Your task to perform on an android device: turn on airplane mode Image 0: 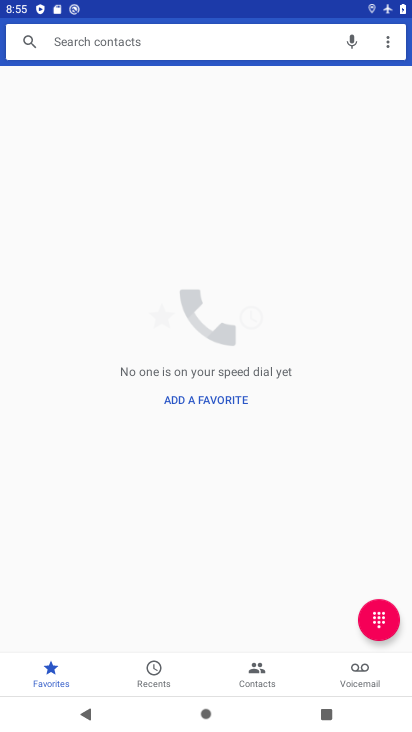
Step 0: press home button
Your task to perform on an android device: turn on airplane mode Image 1: 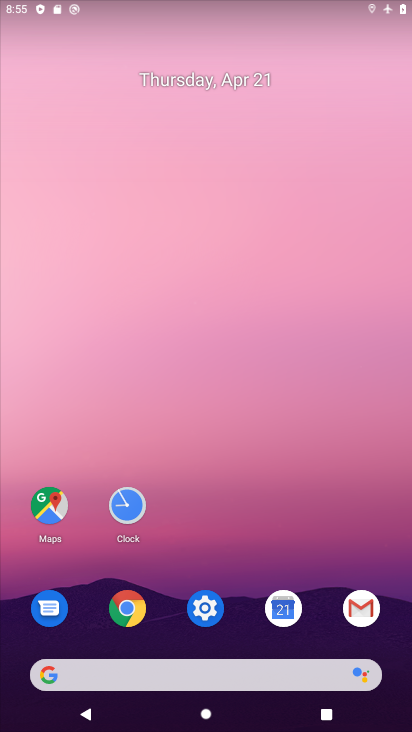
Step 1: click (207, 609)
Your task to perform on an android device: turn on airplane mode Image 2: 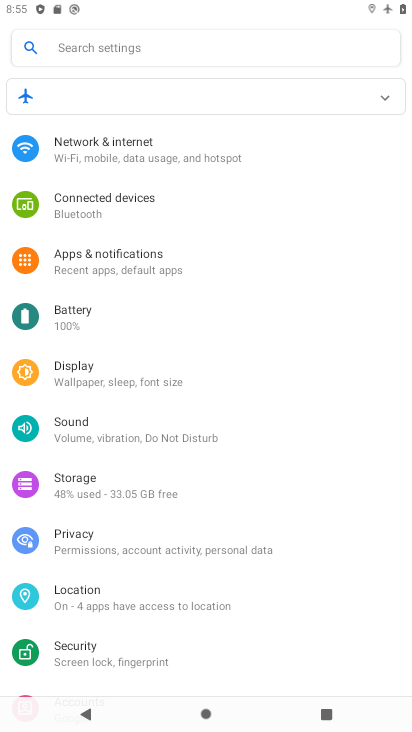
Step 2: click (90, 143)
Your task to perform on an android device: turn on airplane mode Image 3: 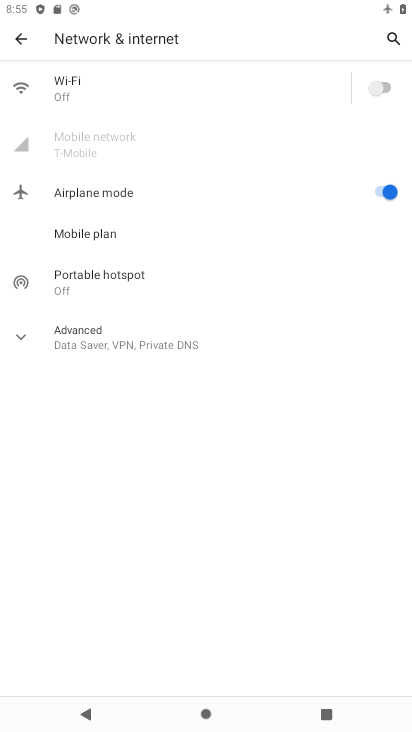
Step 3: task complete